Your task to perform on an android device: empty trash in the gmail app Image 0: 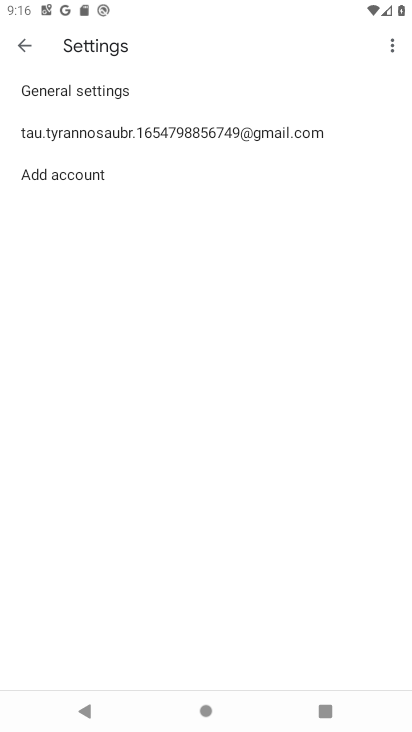
Step 0: click (29, 35)
Your task to perform on an android device: empty trash in the gmail app Image 1: 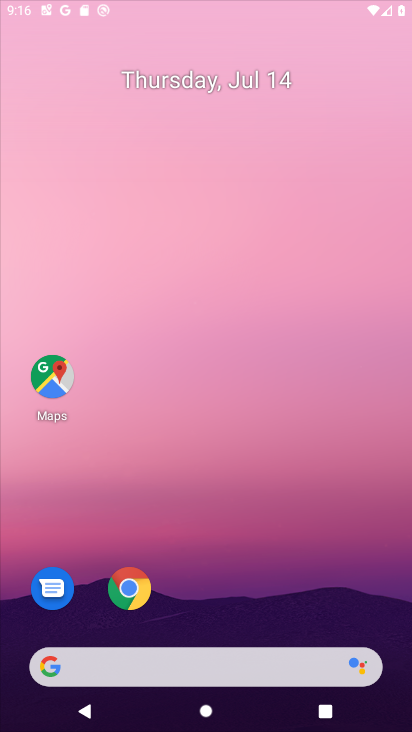
Step 1: click (14, 50)
Your task to perform on an android device: empty trash in the gmail app Image 2: 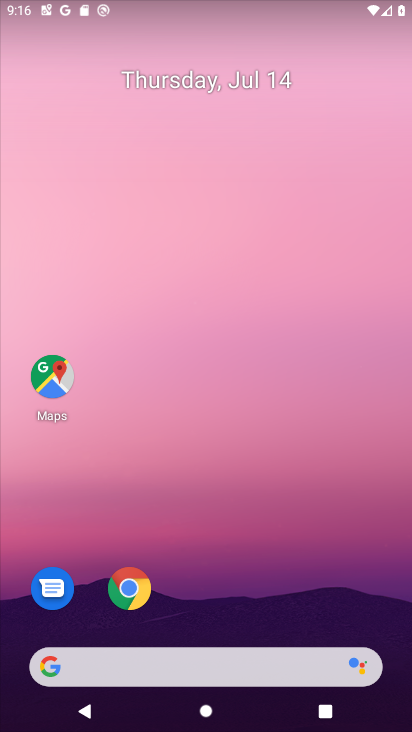
Step 2: drag from (213, 661) to (199, 552)
Your task to perform on an android device: empty trash in the gmail app Image 3: 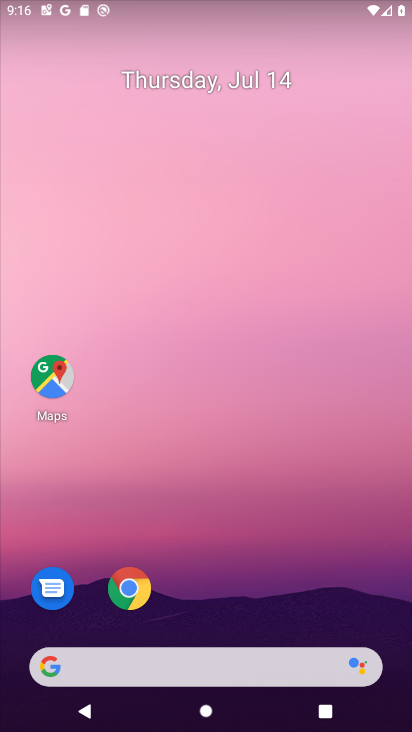
Step 3: click (228, 537)
Your task to perform on an android device: empty trash in the gmail app Image 4: 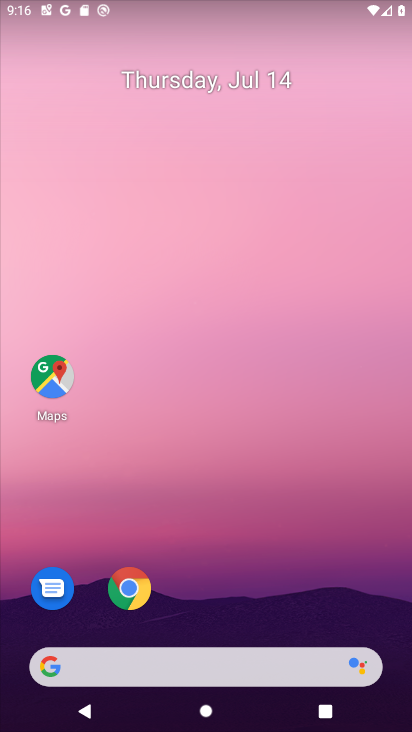
Step 4: drag from (185, 665) to (190, 254)
Your task to perform on an android device: empty trash in the gmail app Image 5: 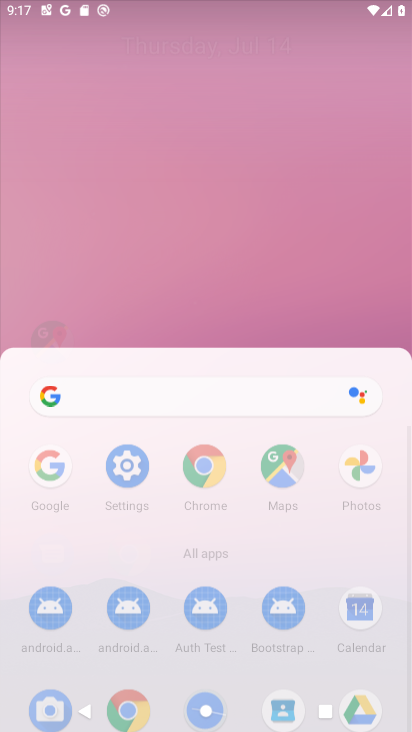
Step 5: drag from (172, 522) to (168, 189)
Your task to perform on an android device: empty trash in the gmail app Image 6: 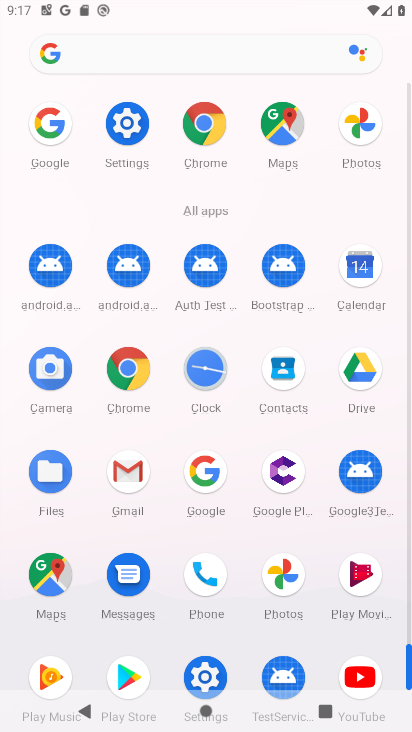
Step 6: click (125, 463)
Your task to perform on an android device: empty trash in the gmail app Image 7: 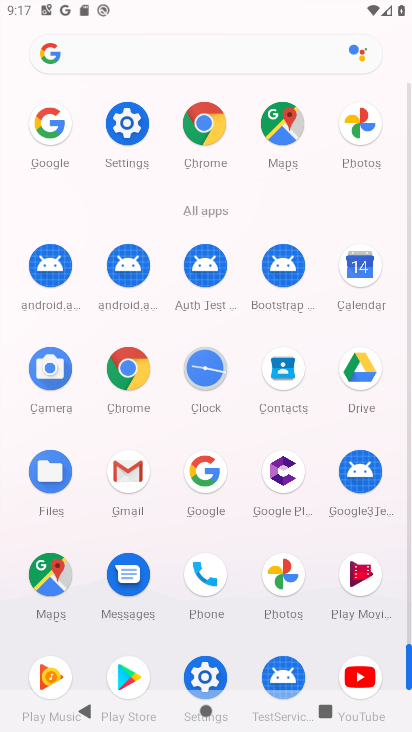
Step 7: click (124, 462)
Your task to perform on an android device: empty trash in the gmail app Image 8: 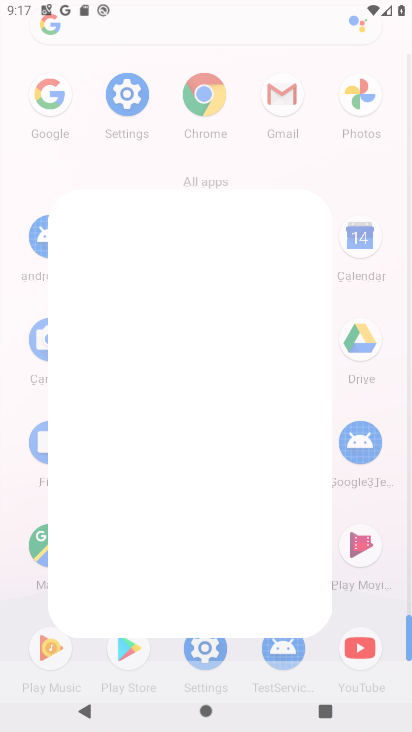
Step 8: click (122, 468)
Your task to perform on an android device: empty trash in the gmail app Image 9: 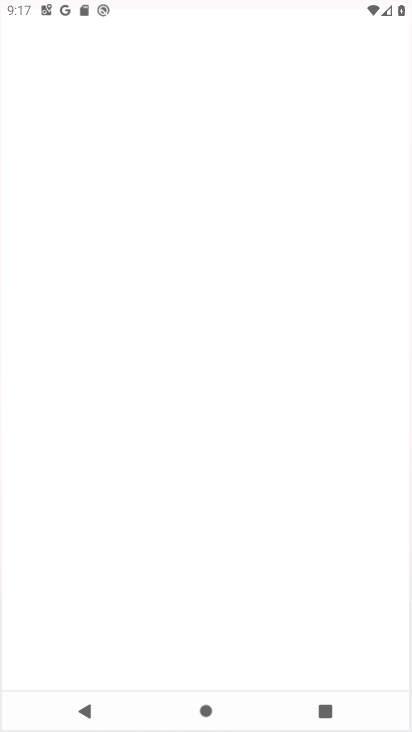
Step 9: click (122, 468)
Your task to perform on an android device: empty trash in the gmail app Image 10: 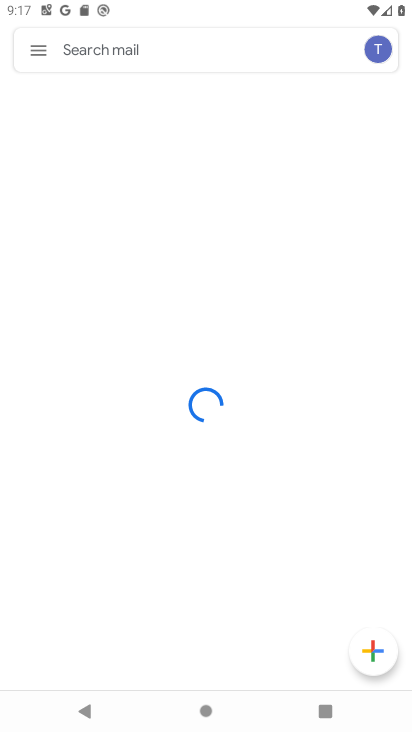
Step 10: click (32, 44)
Your task to perform on an android device: empty trash in the gmail app Image 11: 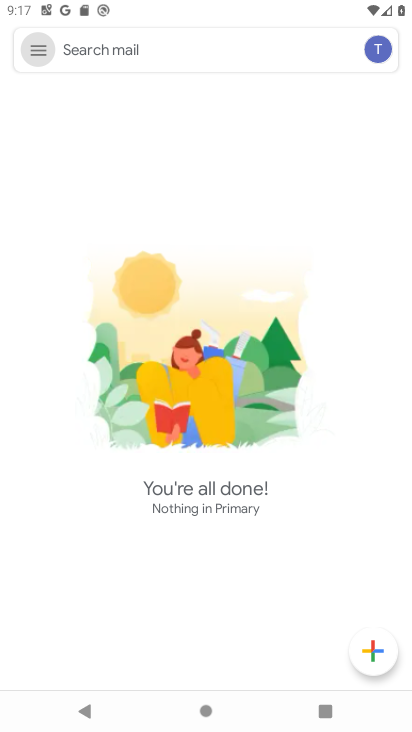
Step 11: click (31, 43)
Your task to perform on an android device: empty trash in the gmail app Image 12: 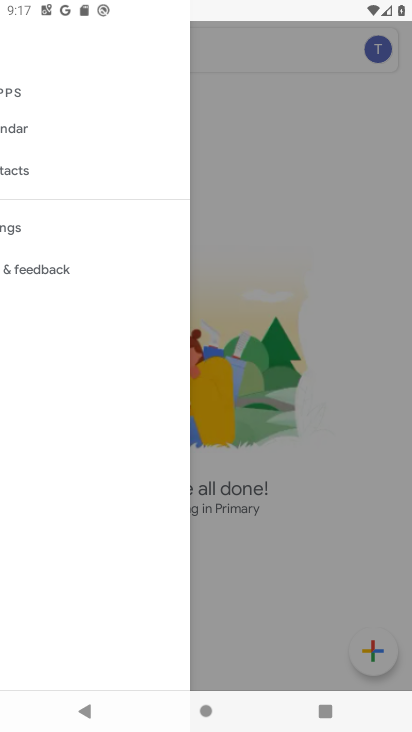
Step 12: click (50, 50)
Your task to perform on an android device: empty trash in the gmail app Image 13: 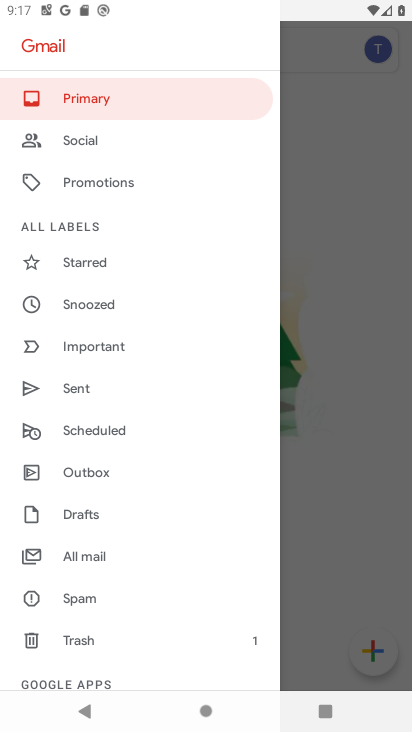
Step 13: click (66, 634)
Your task to perform on an android device: empty trash in the gmail app Image 14: 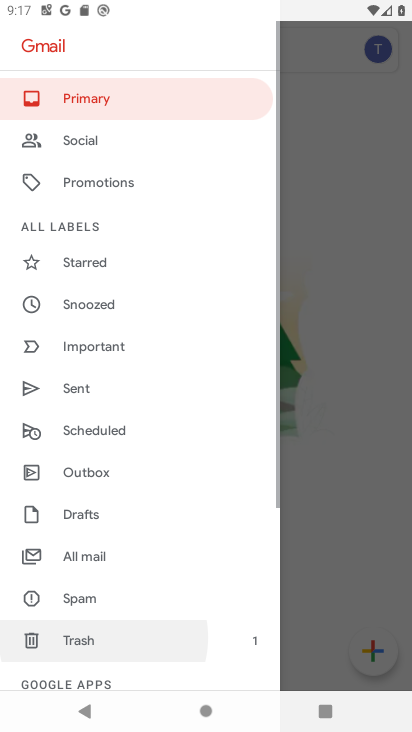
Step 14: click (74, 644)
Your task to perform on an android device: empty trash in the gmail app Image 15: 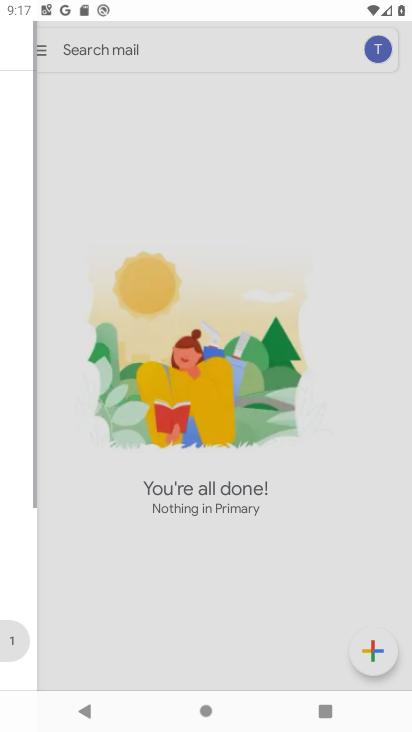
Step 15: click (75, 646)
Your task to perform on an android device: empty trash in the gmail app Image 16: 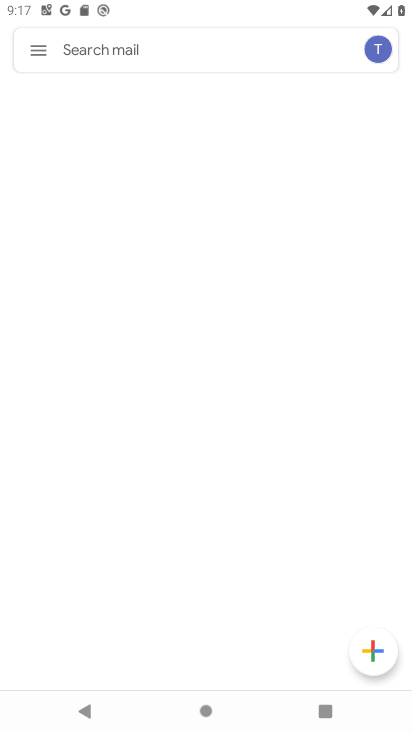
Step 16: click (75, 645)
Your task to perform on an android device: empty trash in the gmail app Image 17: 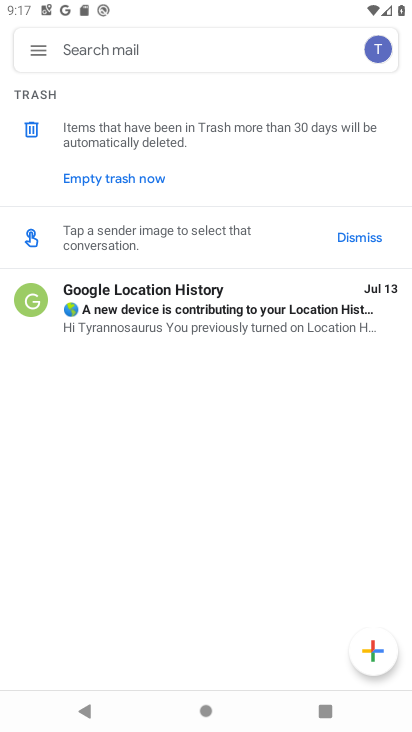
Step 17: task complete